Your task to perform on an android device: check battery use Image 0: 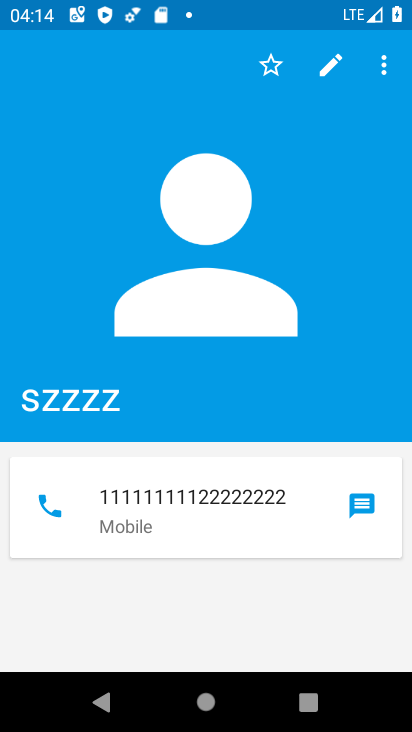
Step 0: press home button
Your task to perform on an android device: check battery use Image 1: 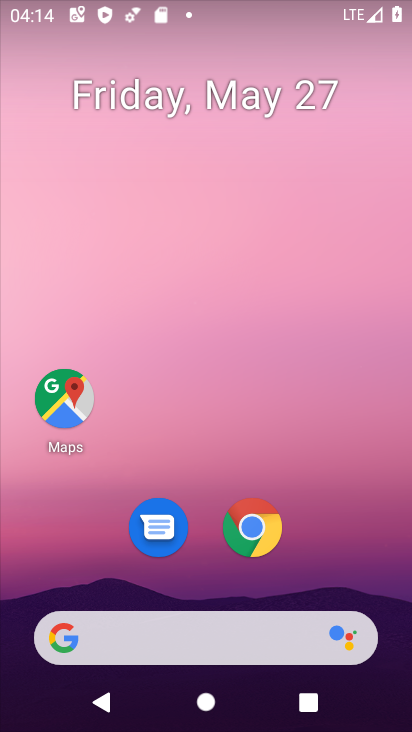
Step 1: drag from (309, 558) to (314, 86)
Your task to perform on an android device: check battery use Image 2: 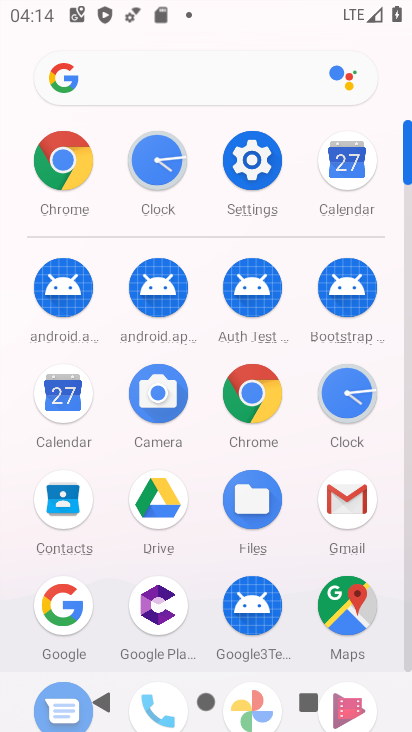
Step 2: click (262, 165)
Your task to perform on an android device: check battery use Image 3: 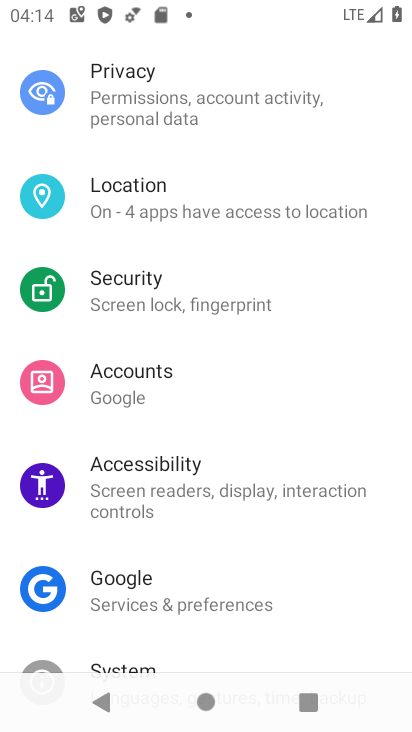
Step 3: drag from (311, 119) to (286, 501)
Your task to perform on an android device: check battery use Image 4: 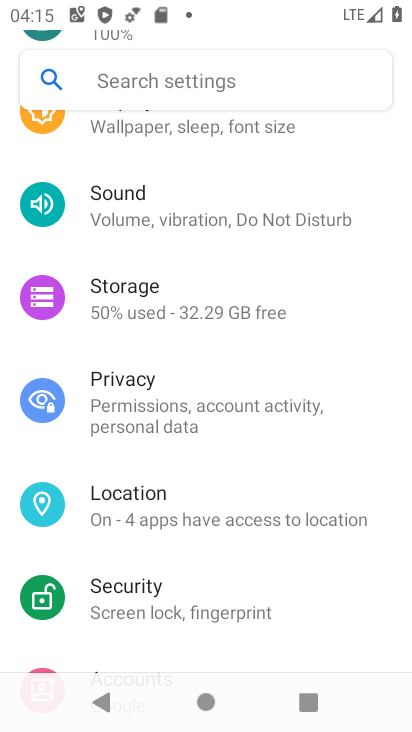
Step 4: drag from (177, 148) to (146, 559)
Your task to perform on an android device: check battery use Image 5: 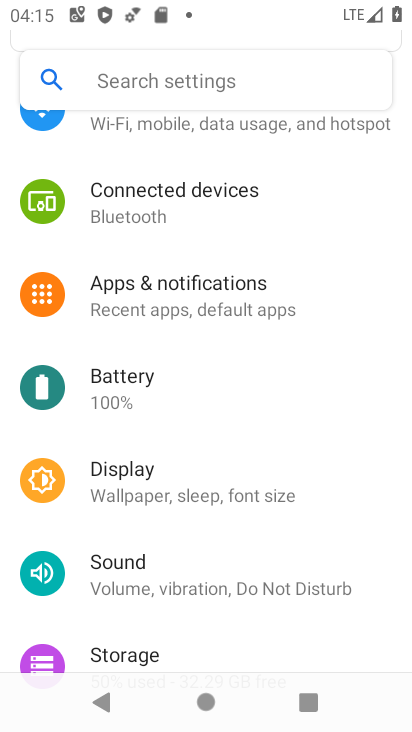
Step 5: click (127, 355)
Your task to perform on an android device: check battery use Image 6: 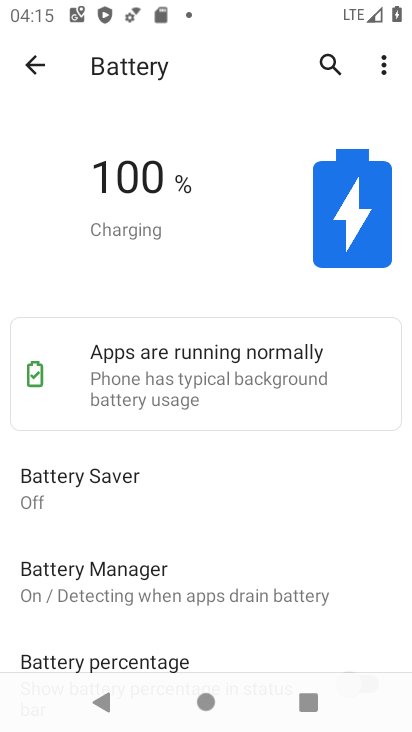
Step 6: task complete